Your task to perform on an android device: turn on bluetooth scan Image 0: 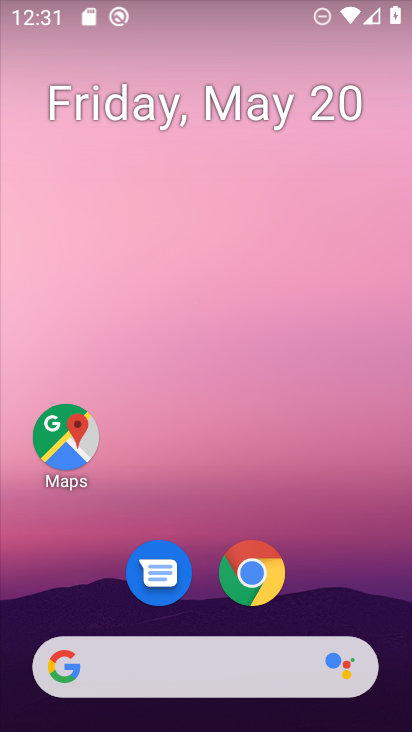
Step 0: drag from (209, 720) to (172, 52)
Your task to perform on an android device: turn on bluetooth scan Image 1: 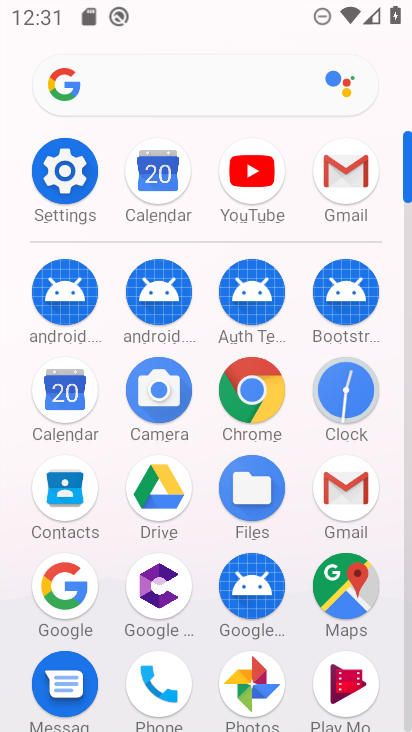
Step 1: click (59, 182)
Your task to perform on an android device: turn on bluetooth scan Image 2: 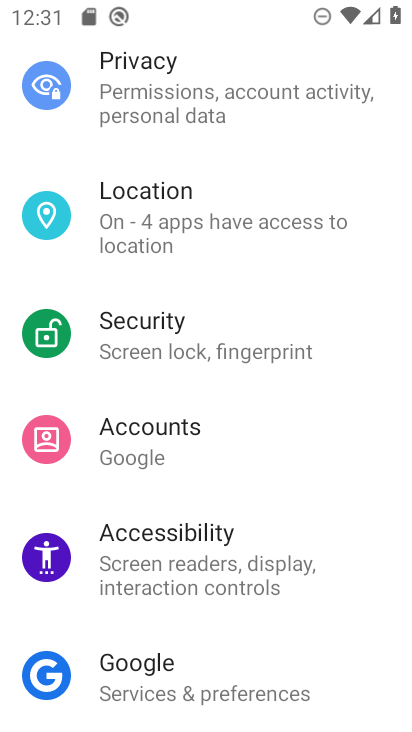
Step 2: drag from (176, 222) to (146, 561)
Your task to perform on an android device: turn on bluetooth scan Image 3: 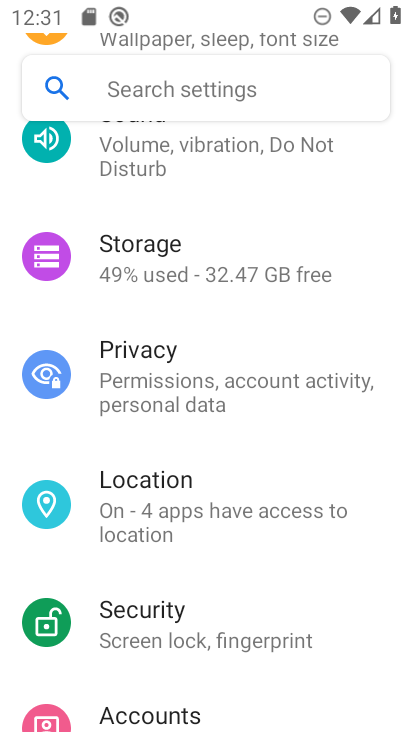
Step 3: drag from (185, 223) to (204, 557)
Your task to perform on an android device: turn on bluetooth scan Image 4: 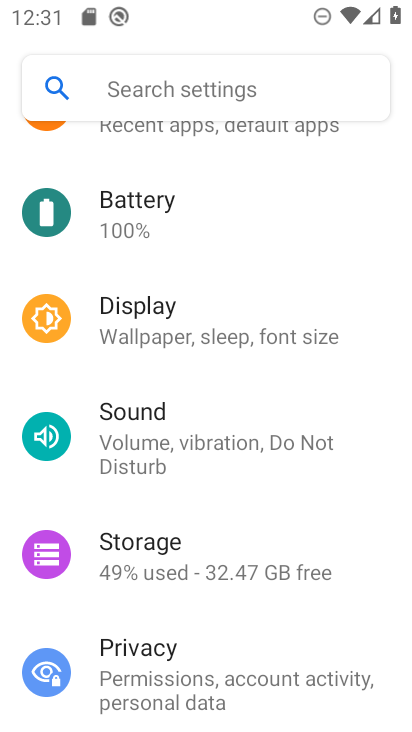
Step 4: drag from (232, 228) to (267, 598)
Your task to perform on an android device: turn on bluetooth scan Image 5: 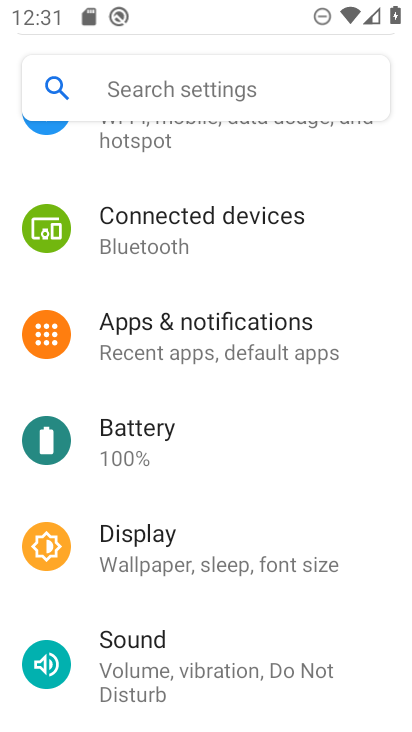
Step 5: drag from (231, 231) to (274, 555)
Your task to perform on an android device: turn on bluetooth scan Image 6: 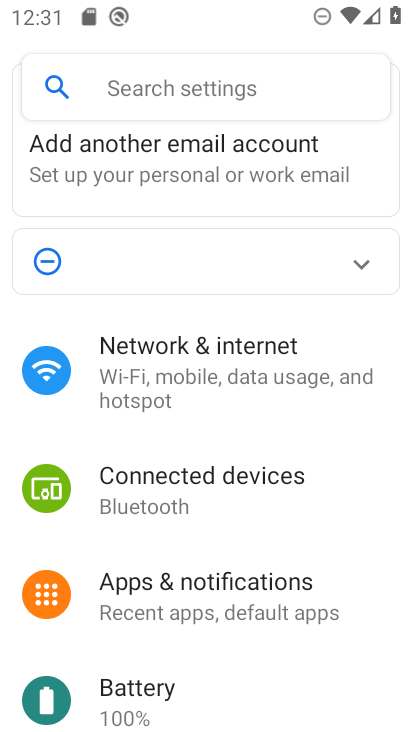
Step 6: drag from (230, 644) to (218, 203)
Your task to perform on an android device: turn on bluetooth scan Image 7: 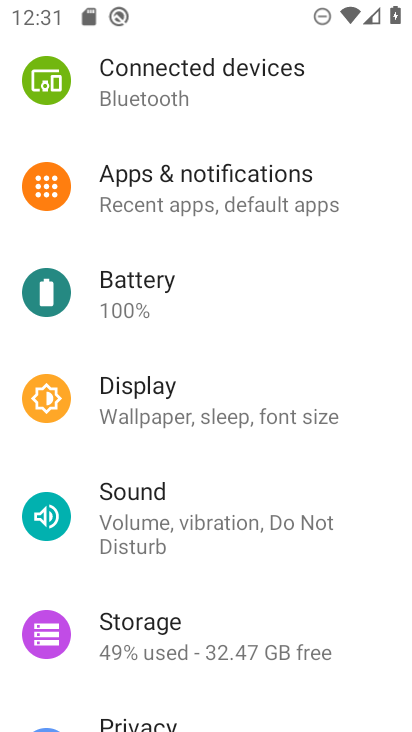
Step 7: drag from (185, 593) to (171, 273)
Your task to perform on an android device: turn on bluetooth scan Image 8: 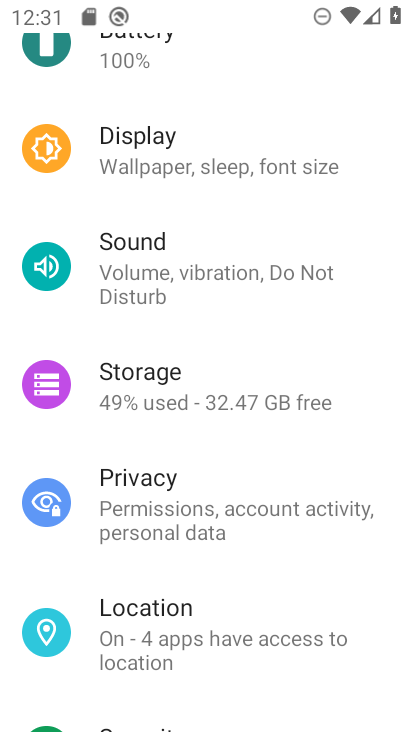
Step 8: click (167, 622)
Your task to perform on an android device: turn on bluetooth scan Image 9: 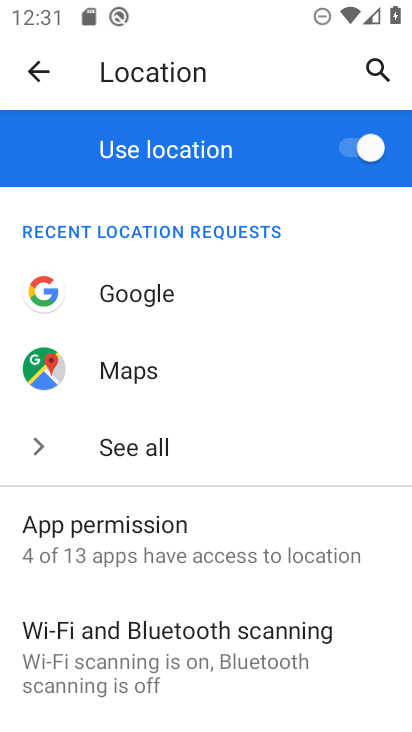
Step 9: drag from (192, 670) to (161, 317)
Your task to perform on an android device: turn on bluetooth scan Image 10: 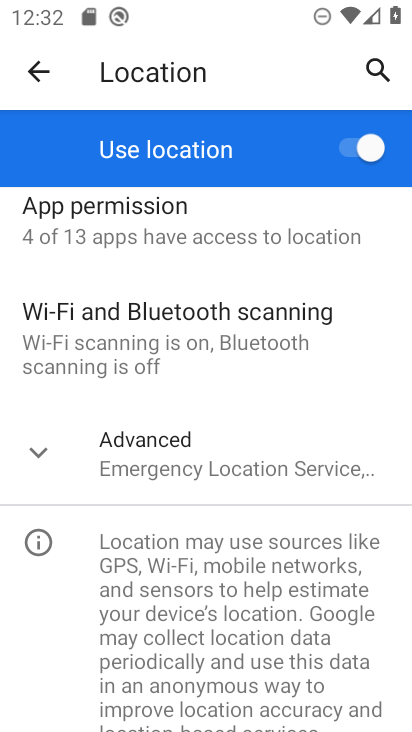
Step 10: click (175, 318)
Your task to perform on an android device: turn on bluetooth scan Image 11: 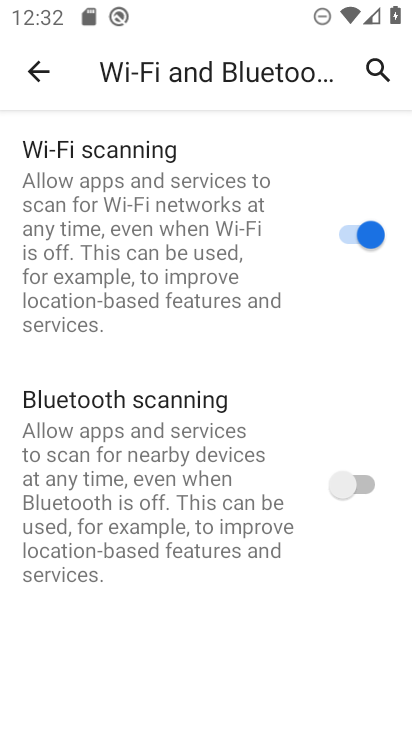
Step 11: click (364, 486)
Your task to perform on an android device: turn on bluetooth scan Image 12: 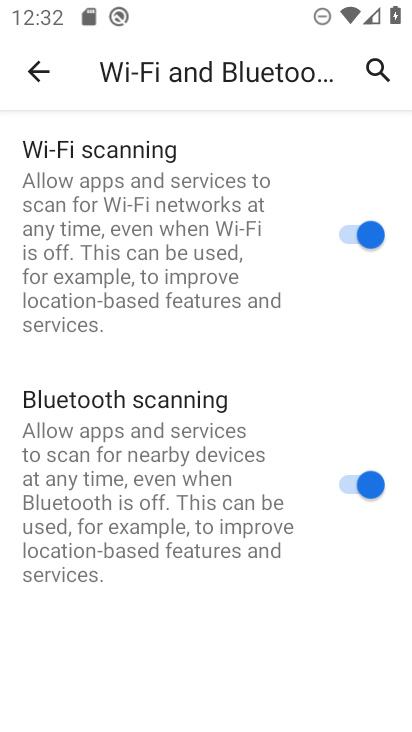
Step 12: task complete